Your task to perform on an android device: set the stopwatch Image 0: 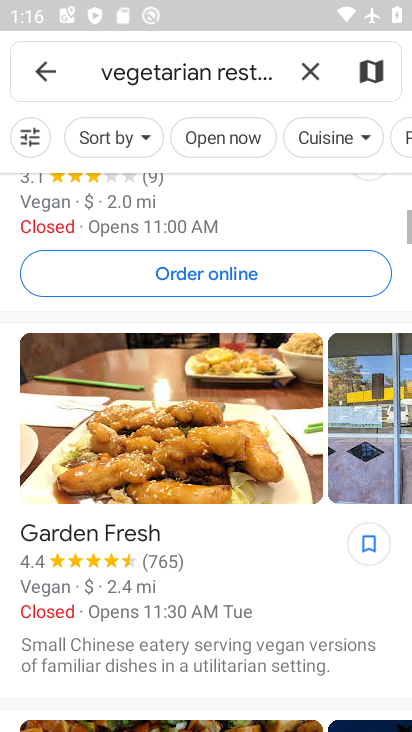
Step 0: press home button
Your task to perform on an android device: set the stopwatch Image 1: 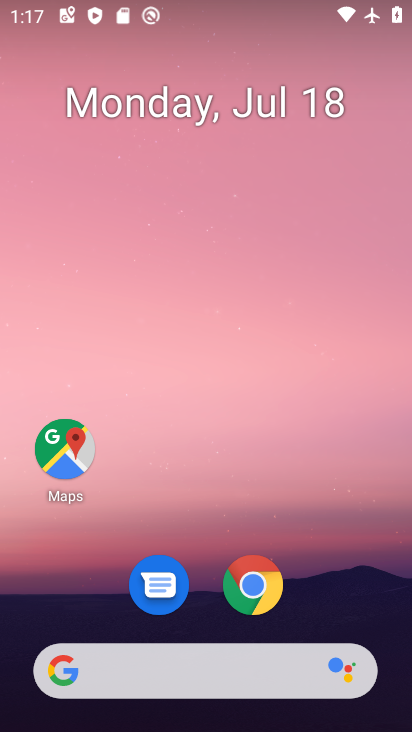
Step 1: drag from (205, 647) to (342, 22)
Your task to perform on an android device: set the stopwatch Image 2: 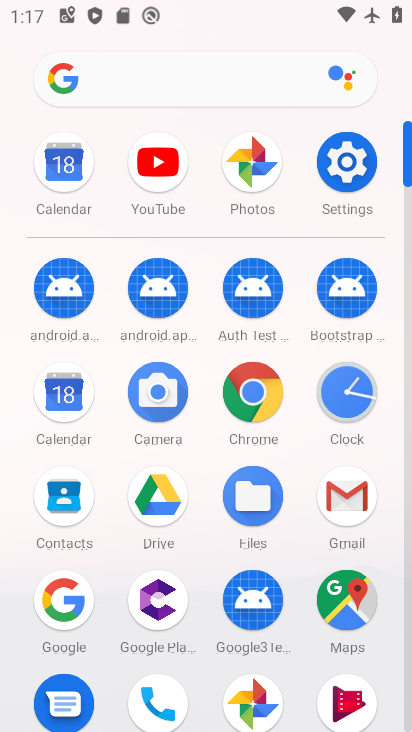
Step 2: click (340, 410)
Your task to perform on an android device: set the stopwatch Image 3: 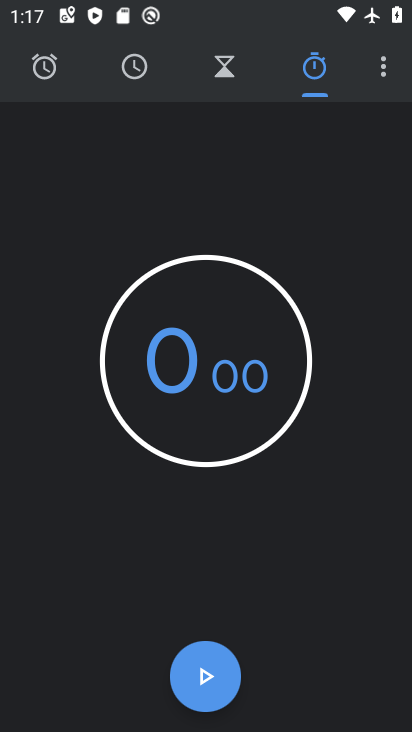
Step 3: click (200, 398)
Your task to perform on an android device: set the stopwatch Image 4: 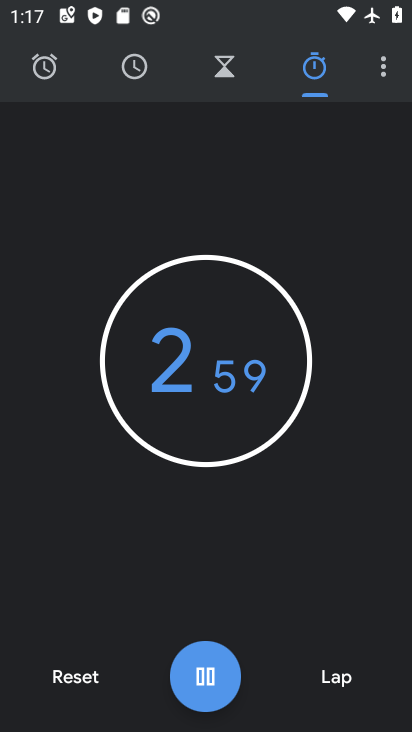
Step 4: click (208, 404)
Your task to perform on an android device: set the stopwatch Image 5: 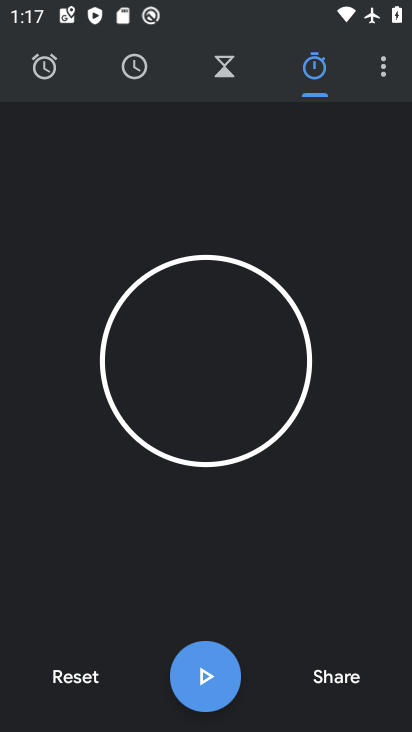
Step 5: task complete